Your task to perform on an android device: Open the web browser Image 0: 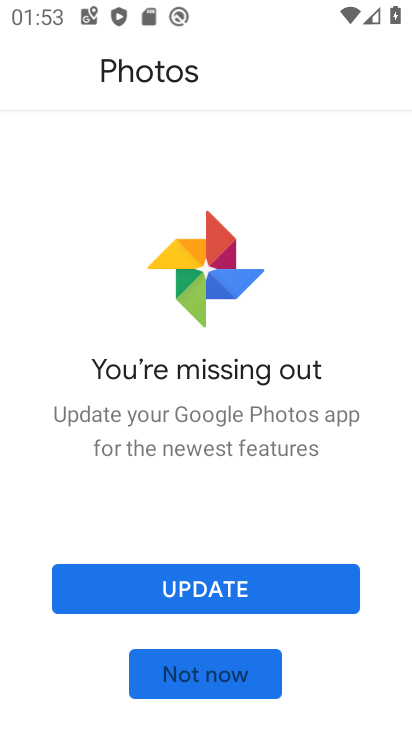
Step 0: press home button
Your task to perform on an android device: Open the web browser Image 1: 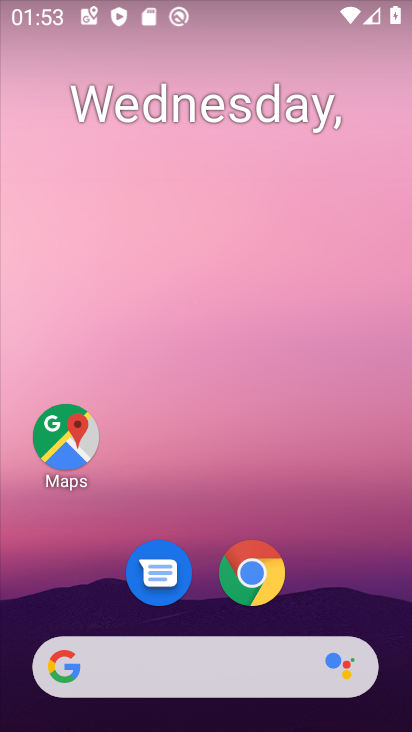
Step 1: click (249, 571)
Your task to perform on an android device: Open the web browser Image 2: 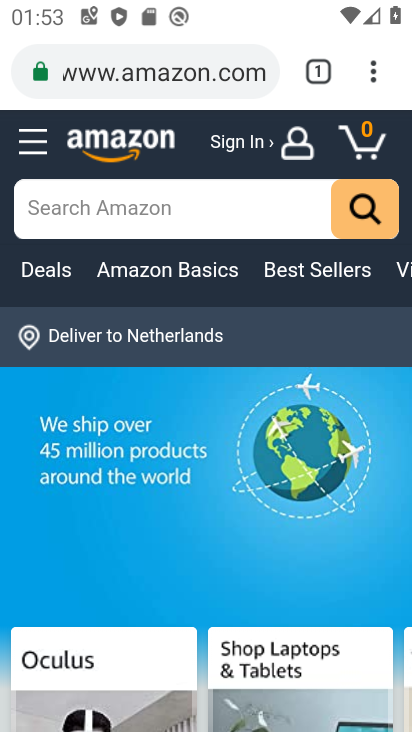
Step 2: task complete